Your task to perform on an android device: turn on translation in the chrome app Image 0: 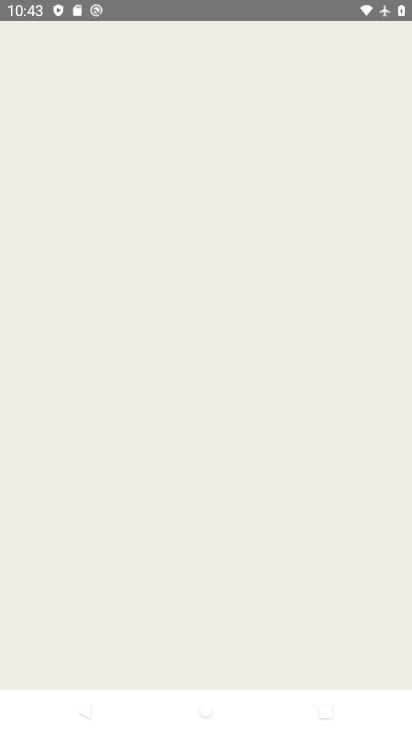
Step 0: press home button
Your task to perform on an android device: turn on translation in the chrome app Image 1: 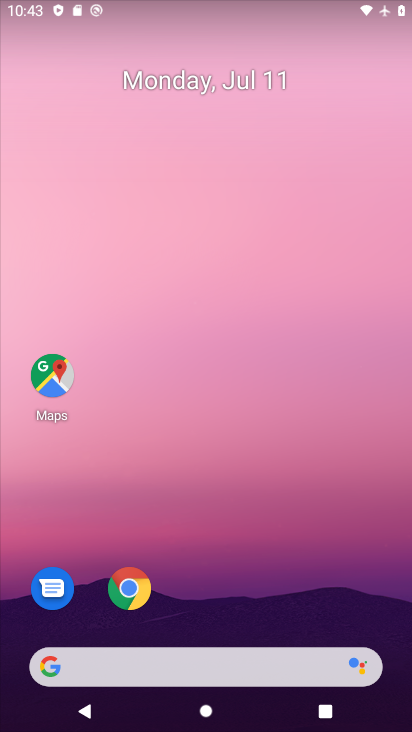
Step 1: press home button
Your task to perform on an android device: turn on translation in the chrome app Image 2: 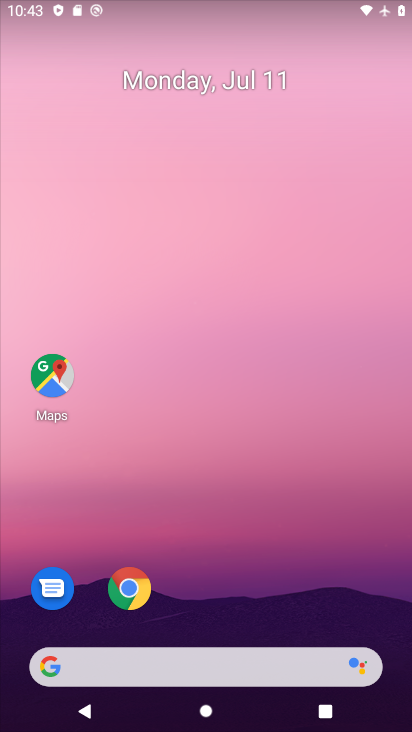
Step 2: click (131, 594)
Your task to perform on an android device: turn on translation in the chrome app Image 3: 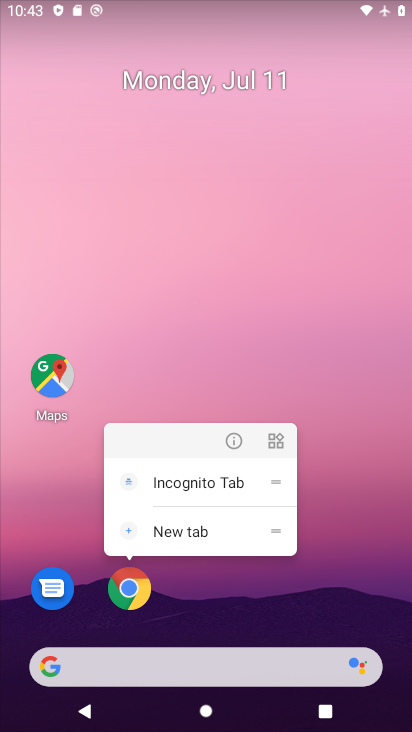
Step 3: click (117, 590)
Your task to perform on an android device: turn on translation in the chrome app Image 4: 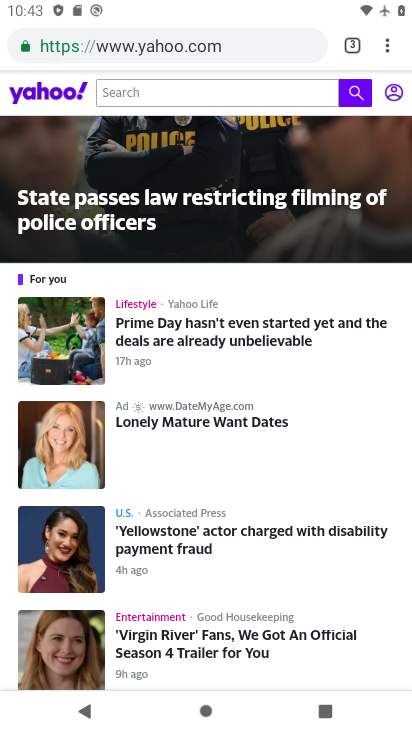
Step 4: drag from (388, 44) to (241, 556)
Your task to perform on an android device: turn on translation in the chrome app Image 5: 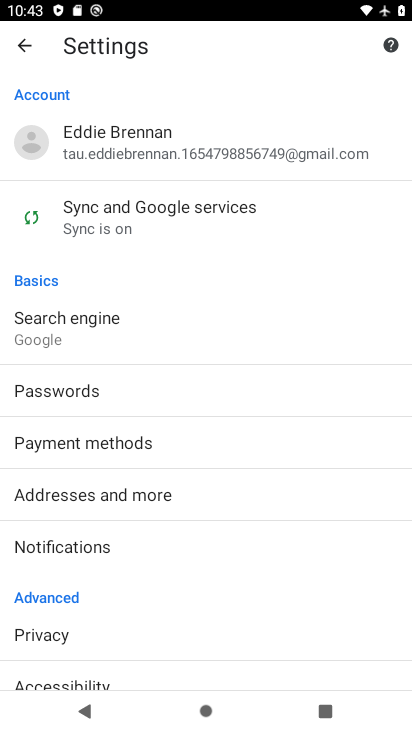
Step 5: drag from (179, 637) to (258, 391)
Your task to perform on an android device: turn on translation in the chrome app Image 6: 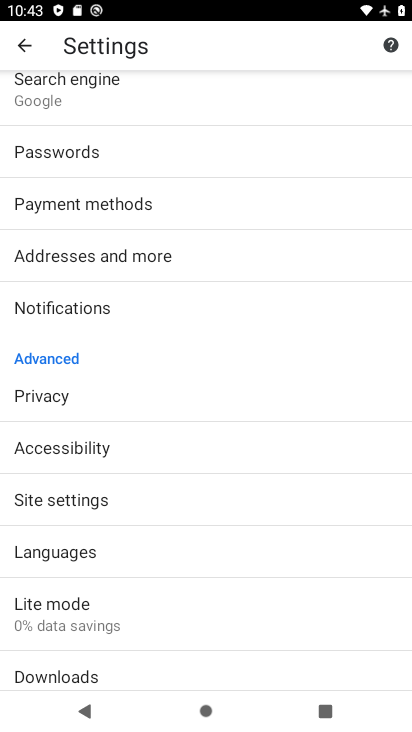
Step 6: click (116, 558)
Your task to perform on an android device: turn on translation in the chrome app Image 7: 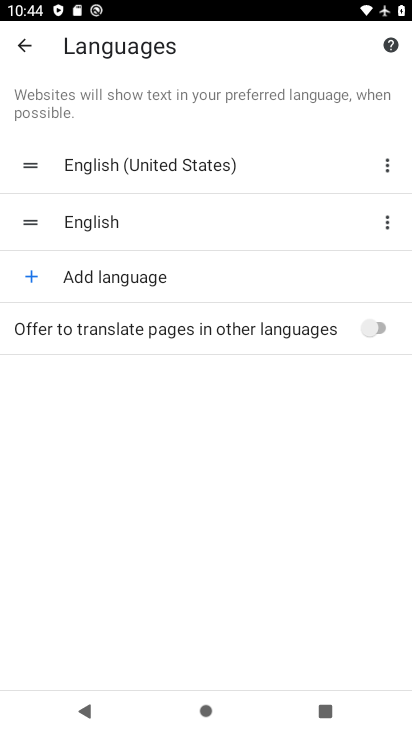
Step 7: click (380, 324)
Your task to perform on an android device: turn on translation in the chrome app Image 8: 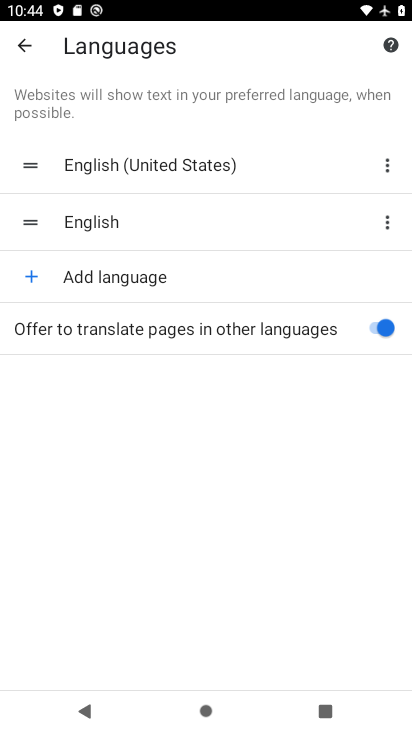
Step 8: task complete